Your task to perform on an android device: Open Chrome and go to settings Image 0: 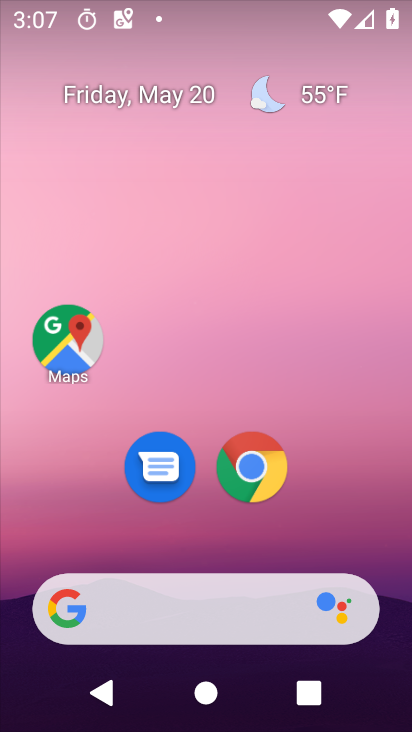
Step 0: click (255, 468)
Your task to perform on an android device: Open Chrome and go to settings Image 1: 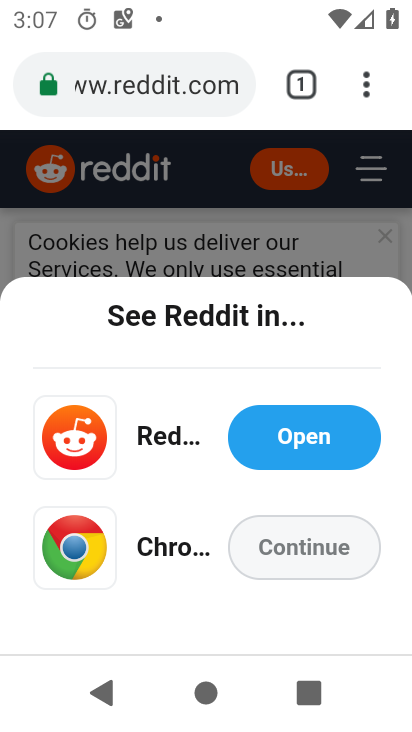
Step 1: click (361, 84)
Your task to perform on an android device: Open Chrome and go to settings Image 2: 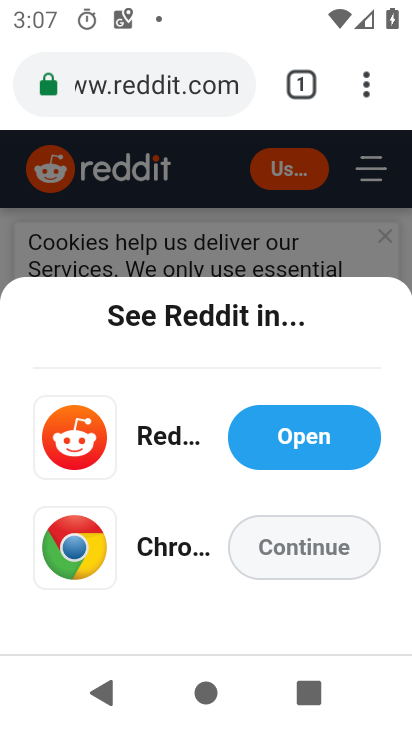
Step 2: click (364, 72)
Your task to perform on an android device: Open Chrome and go to settings Image 3: 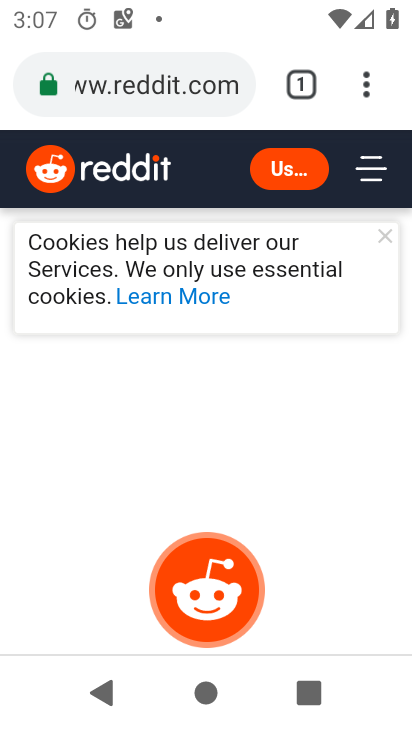
Step 3: click (366, 101)
Your task to perform on an android device: Open Chrome and go to settings Image 4: 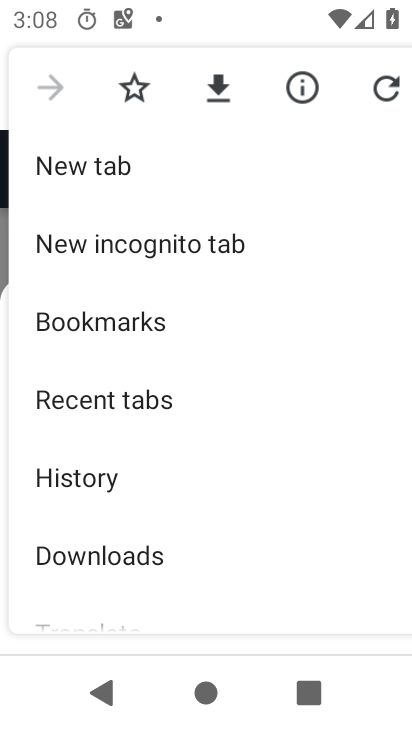
Step 4: drag from (127, 576) to (145, 263)
Your task to perform on an android device: Open Chrome and go to settings Image 5: 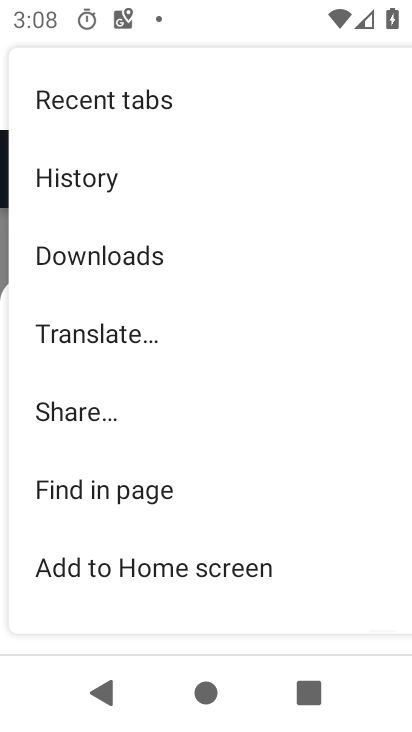
Step 5: drag from (140, 574) to (145, 303)
Your task to perform on an android device: Open Chrome and go to settings Image 6: 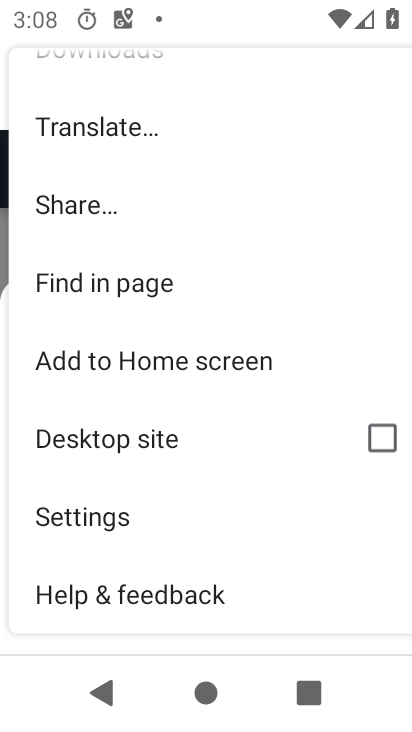
Step 6: click (90, 519)
Your task to perform on an android device: Open Chrome and go to settings Image 7: 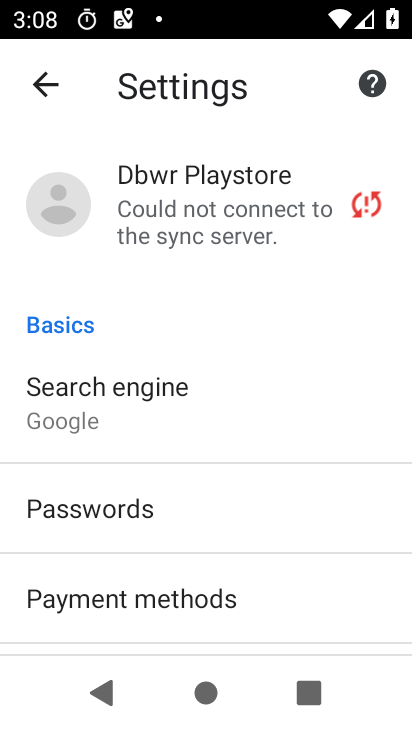
Step 7: task complete